Your task to perform on an android device: Search for Italian restaurants on Maps Image 0: 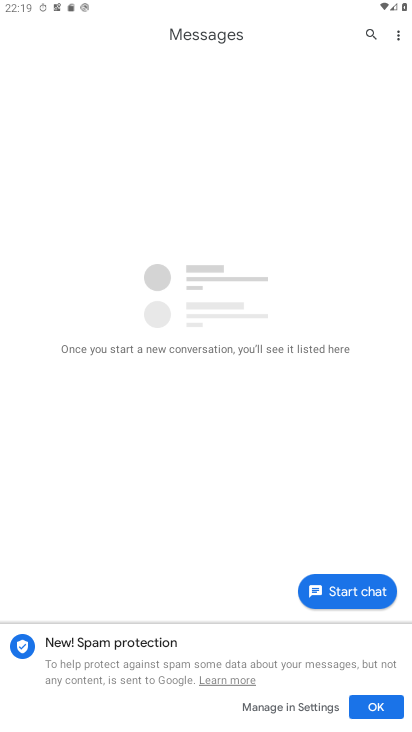
Step 0: press home button
Your task to perform on an android device: Search for Italian restaurants on Maps Image 1: 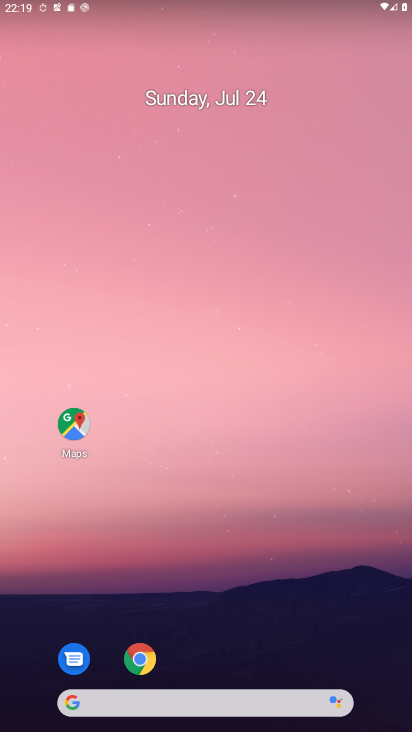
Step 1: drag from (212, 725) to (212, 689)
Your task to perform on an android device: Search for Italian restaurants on Maps Image 2: 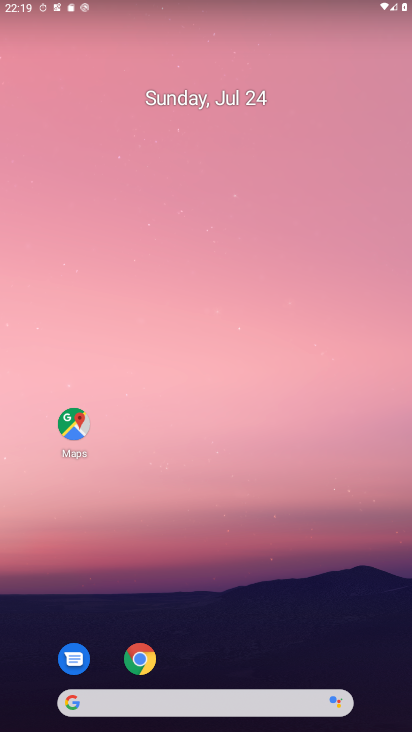
Step 2: click (212, 101)
Your task to perform on an android device: Search for Italian restaurants on Maps Image 3: 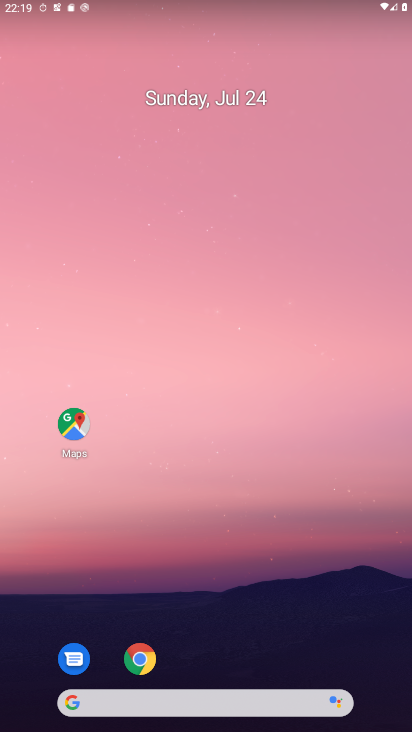
Step 3: drag from (230, 726) to (217, 354)
Your task to perform on an android device: Search for Italian restaurants on Maps Image 4: 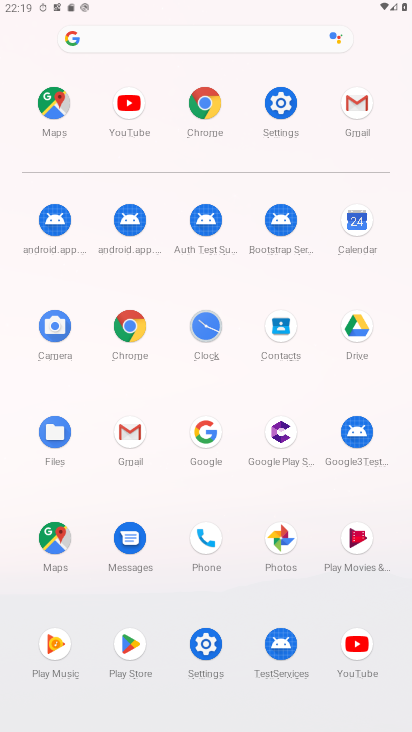
Step 4: click (50, 533)
Your task to perform on an android device: Search for Italian restaurants on Maps Image 5: 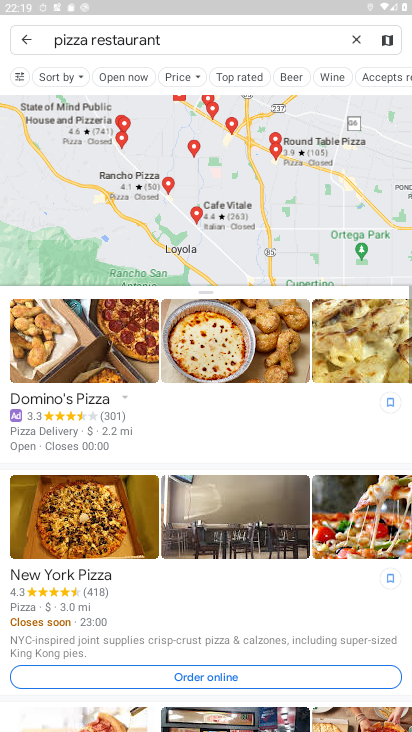
Step 5: click (353, 34)
Your task to perform on an android device: Search for Italian restaurants on Maps Image 6: 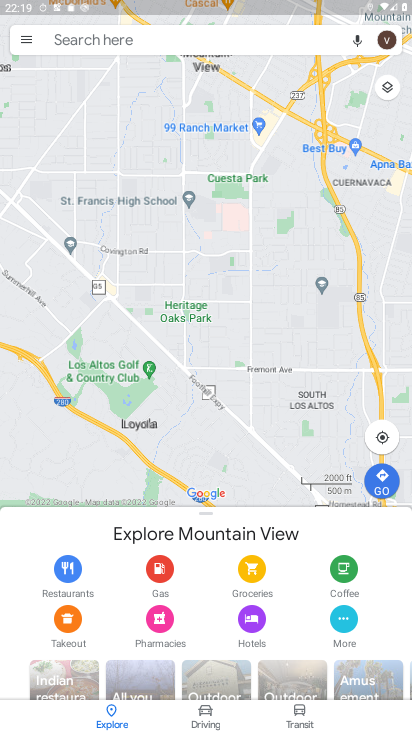
Step 6: click (205, 37)
Your task to perform on an android device: Search for Italian restaurants on Maps Image 7: 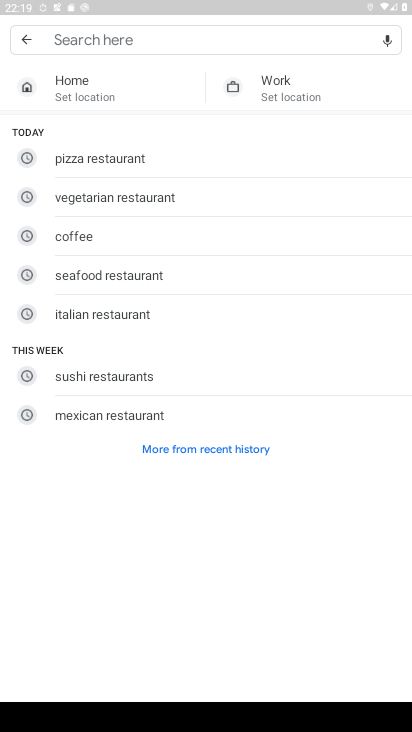
Step 7: type "italian restaurants"
Your task to perform on an android device: Search for Italian restaurants on Maps Image 8: 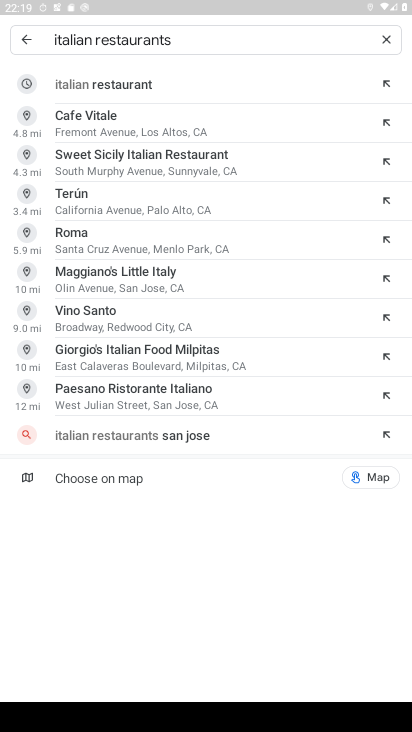
Step 8: click (114, 84)
Your task to perform on an android device: Search for Italian restaurants on Maps Image 9: 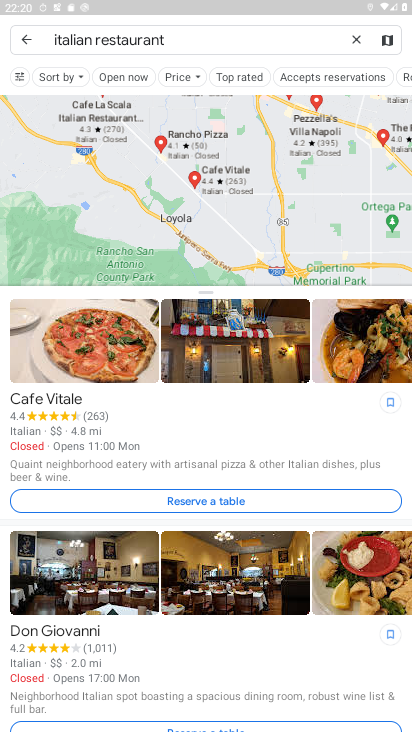
Step 9: task complete